Your task to perform on an android device: check the backup settings in the google photos Image 0: 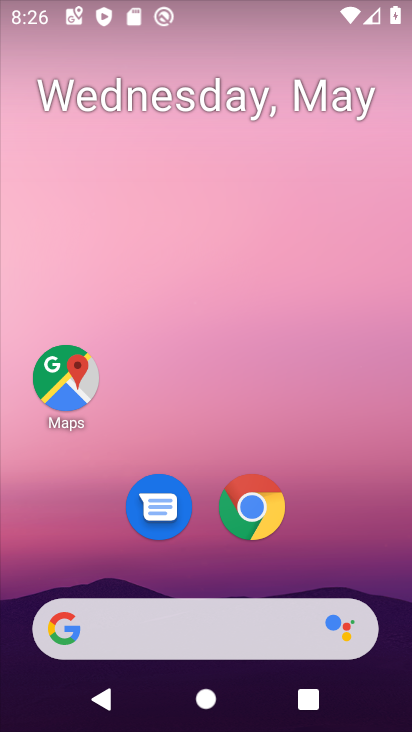
Step 0: drag from (313, 509) to (322, 209)
Your task to perform on an android device: check the backup settings in the google photos Image 1: 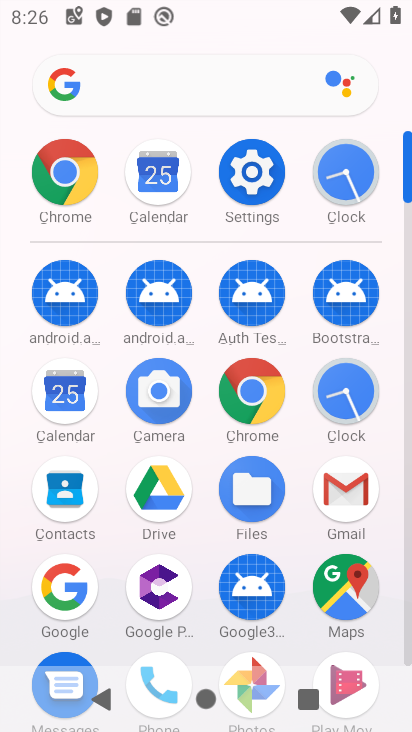
Step 1: drag from (200, 566) to (188, 297)
Your task to perform on an android device: check the backup settings in the google photos Image 2: 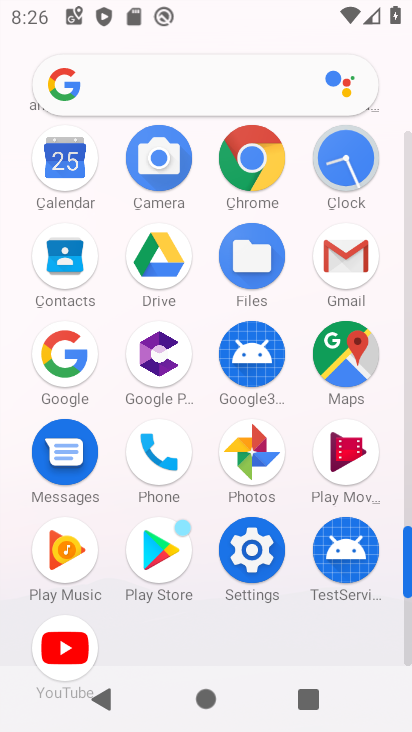
Step 2: click (238, 445)
Your task to perform on an android device: check the backup settings in the google photos Image 3: 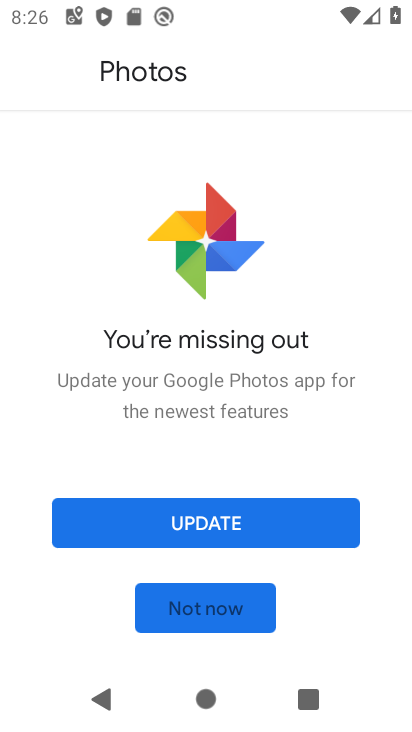
Step 3: click (226, 595)
Your task to perform on an android device: check the backup settings in the google photos Image 4: 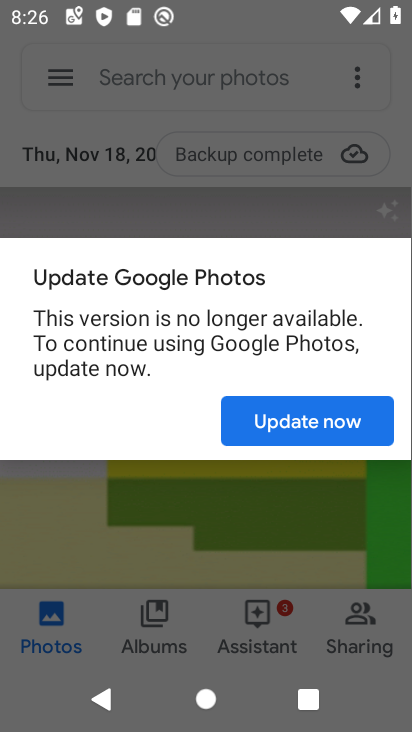
Step 4: click (350, 408)
Your task to perform on an android device: check the backup settings in the google photos Image 5: 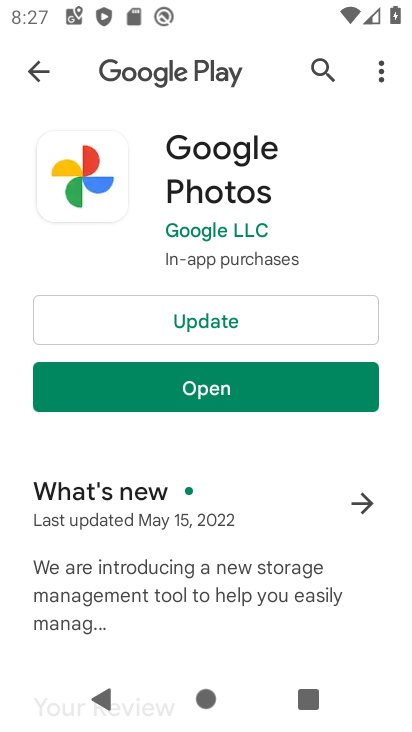
Step 5: press back button
Your task to perform on an android device: check the backup settings in the google photos Image 6: 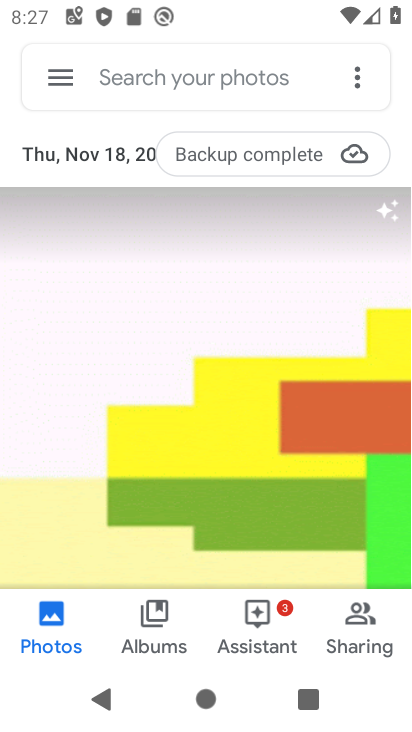
Step 6: click (71, 73)
Your task to perform on an android device: check the backup settings in the google photos Image 7: 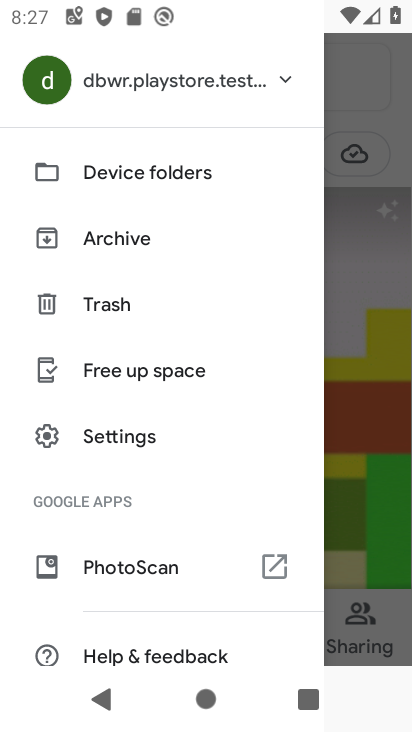
Step 7: click (146, 435)
Your task to perform on an android device: check the backup settings in the google photos Image 8: 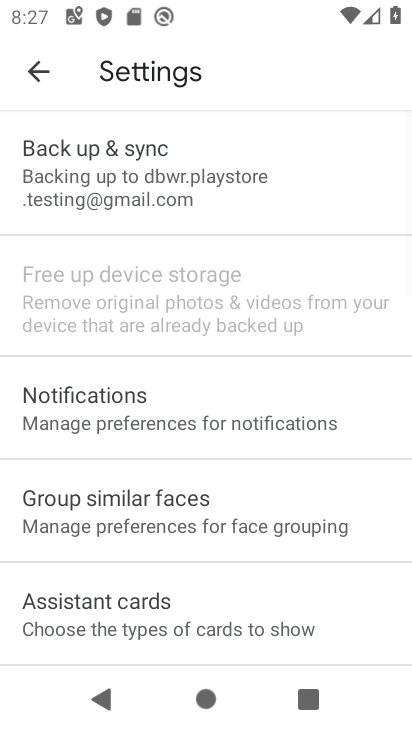
Step 8: click (158, 187)
Your task to perform on an android device: check the backup settings in the google photos Image 9: 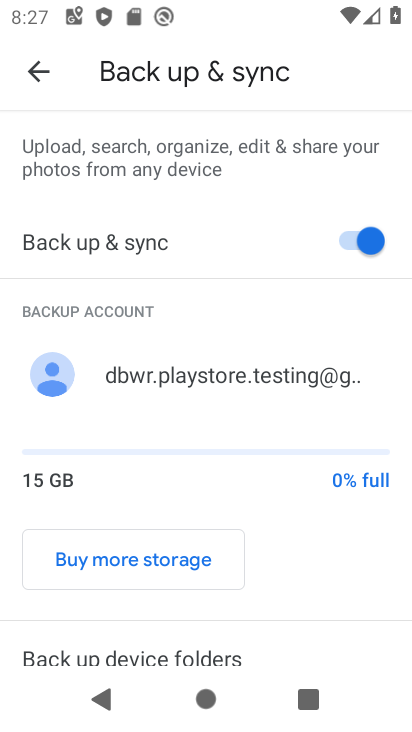
Step 9: task complete